Your task to perform on an android device: toggle sleep mode Image 0: 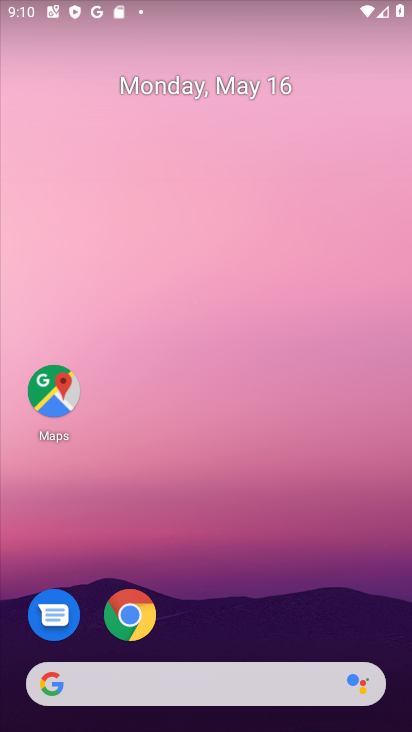
Step 0: drag from (37, 532) to (226, 131)
Your task to perform on an android device: toggle sleep mode Image 1: 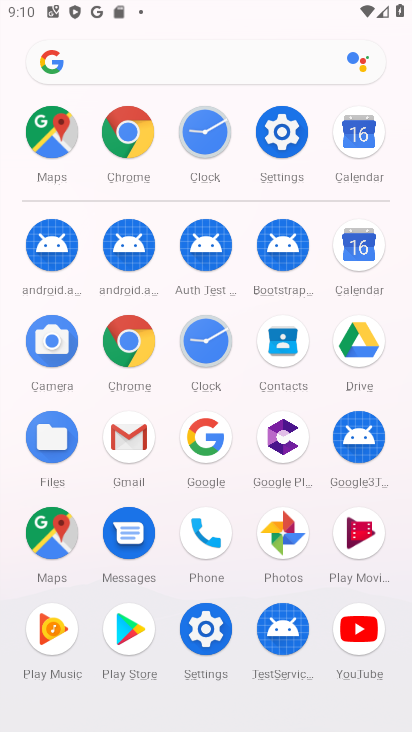
Step 1: click (276, 124)
Your task to perform on an android device: toggle sleep mode Image 2: 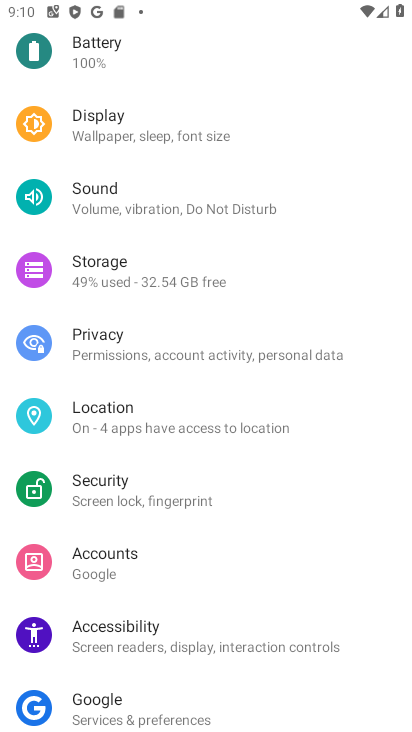
Step 2: click (230, 142)
Your task to perform on an android device: toggle sleep mode Image 3: 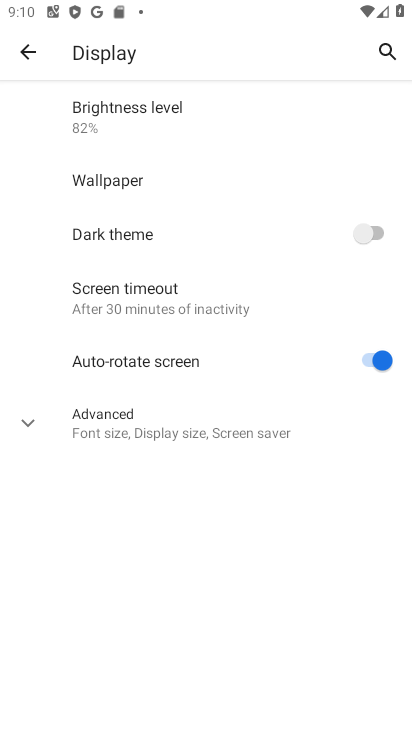
Step 3: task complete